Your task to perform on an android device: manage bookmarks in the chrome app Image 0: 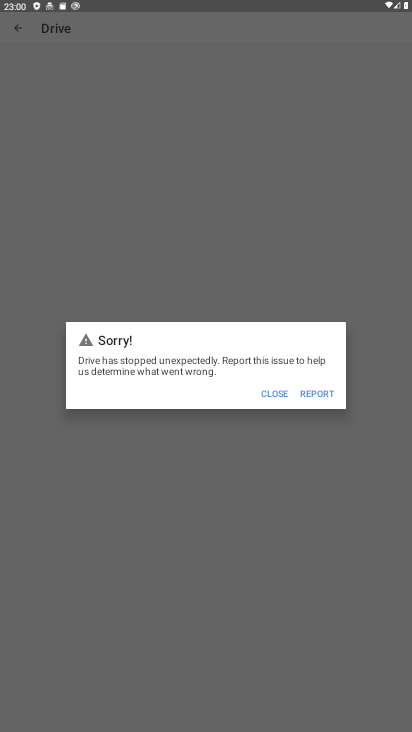
Step 0: drag from (214, 641) to (214, 280)
Your task to perform on an android device: manage bookmarks in the chrome app Image 1: 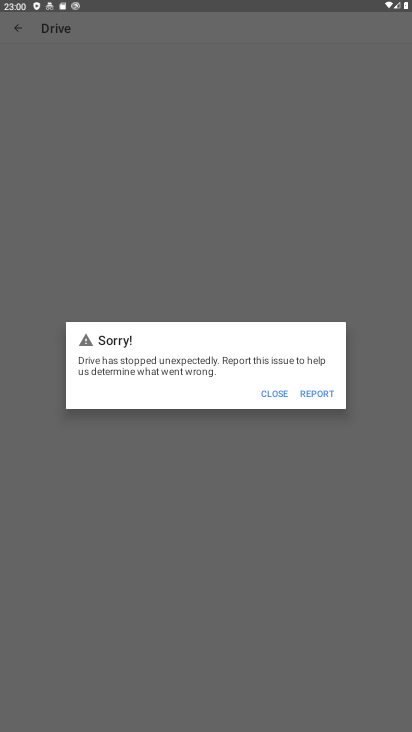
Step 1: click (280, 401)
Your task to perform on an android device: manage bookmarks in the chrome app Image 2: 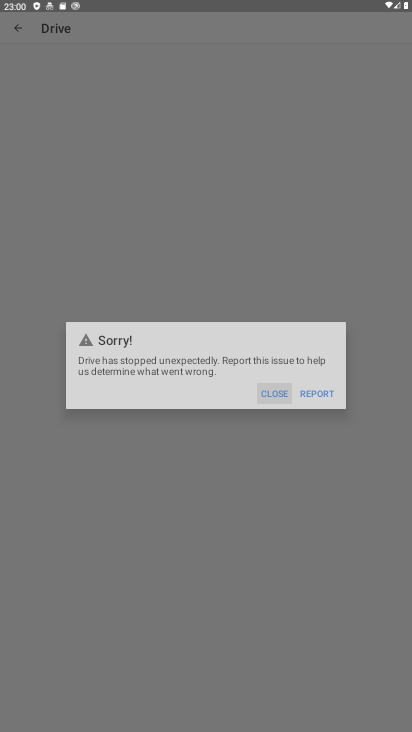
Step 2: click (274, 384)
Your task to perform on an android device: manage bookmarks in the chrome app Image 3: 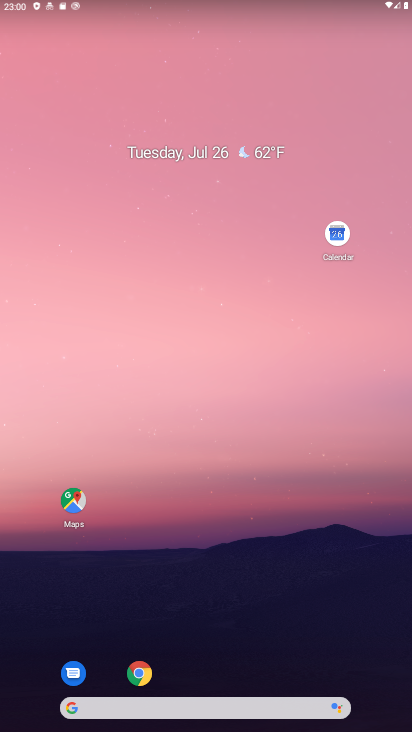
Step 3: drag from (231, 586) to (149, 173)
Your task to perform on an android device: manage bookmarks in the chrome app Image 4: 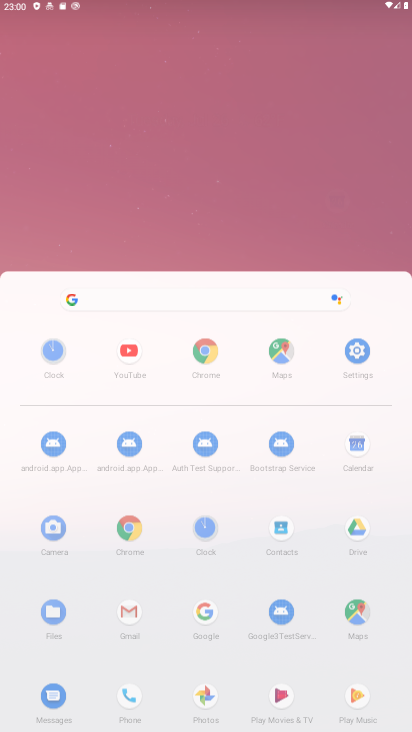
Step 4: drag from (231, 526) to (208, 176)
Your task to perform on an android device: manage bookmarks in the chrome app Image 5: 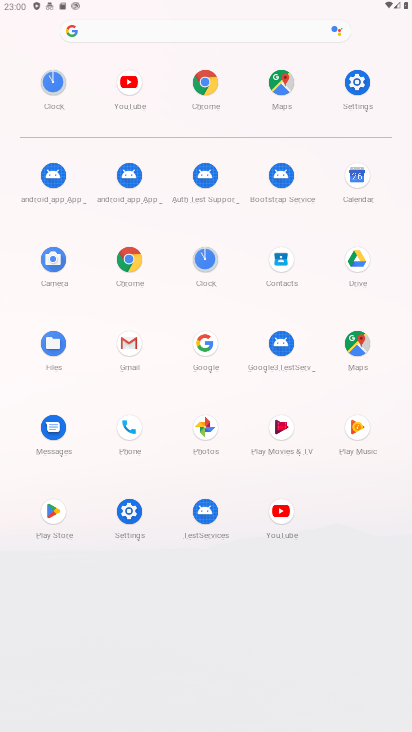
Step 5: click (203, 98)
Your task to perform on an android device: manage bookmarks in the chrome app Image 6: 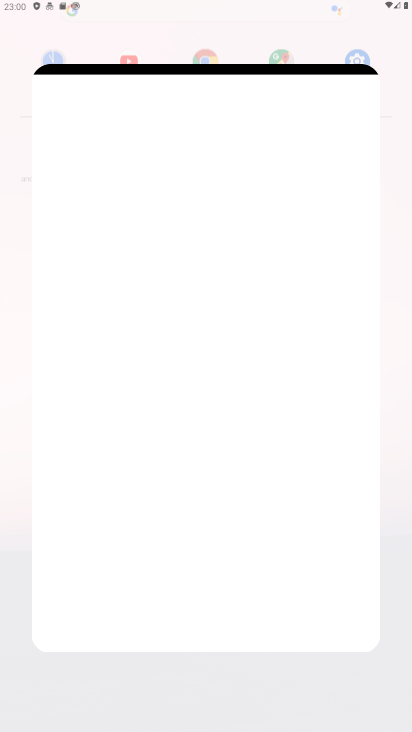
Step 6: click (204, 94)
Your task to perform on an android device: manage bookmarks in the chrome app Image 7: 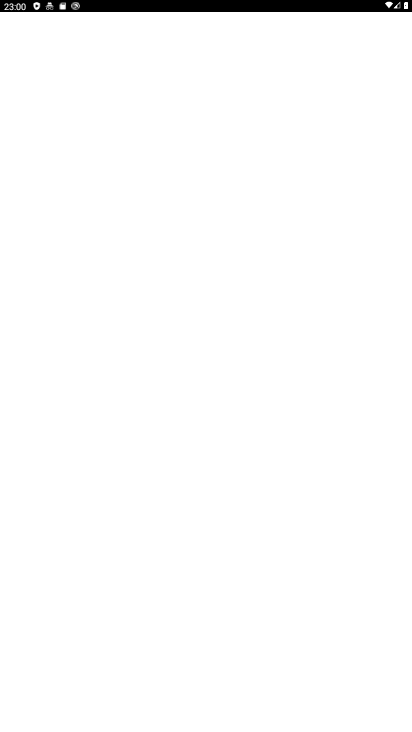
Step 7: click (206, 96)
Your task to perform on an android device: manage bookmarks in the chrome app Image 8: 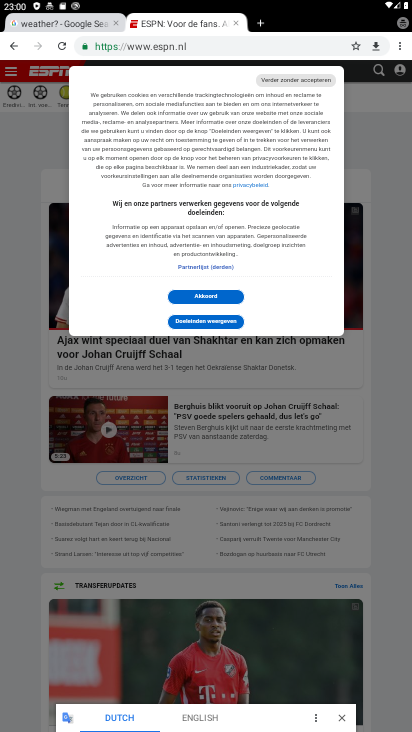
Step 8: click (363, 163)
Your task to perform on an android device: manage bookmarks in the chrome app Image 9: 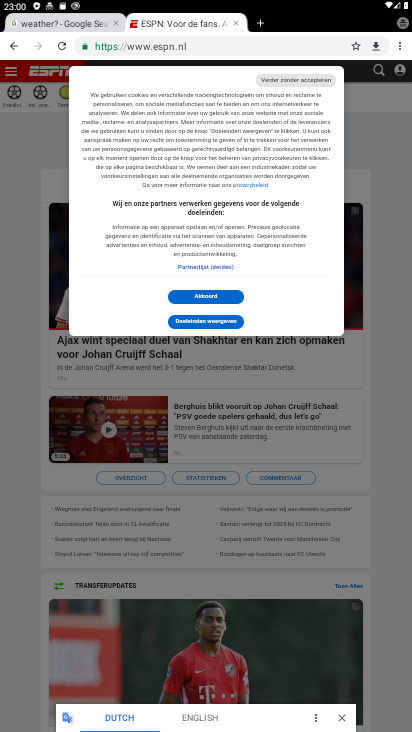
Step 9: drag from (393, 48) to (304, 85)
Your task to perform on an android device: manage bookmarks in the chrome app Image 10: 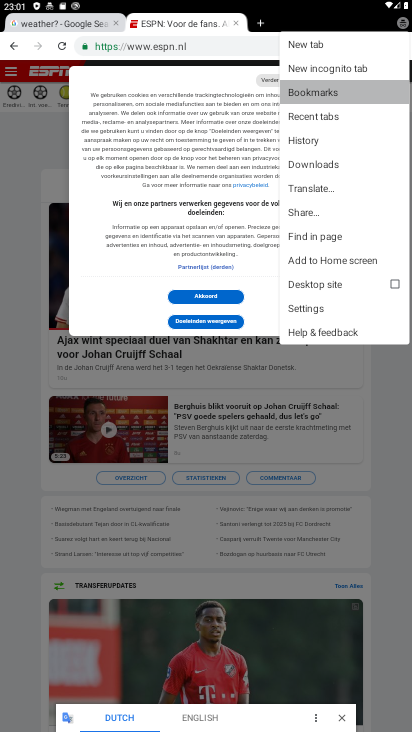
Step 10: click (304, 82)
Your task to perform on an android device: manage bookmarks in the chrome app Image 11: 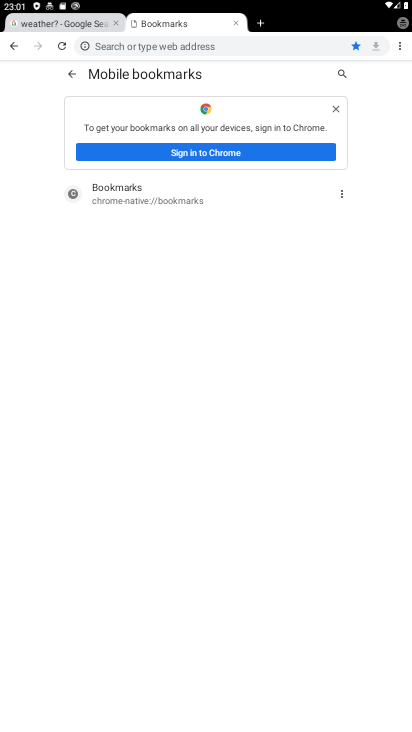
Step 11: click (337, 106)
Your task to perform on an android device: manage bookmarks in the chrome app Image 12: 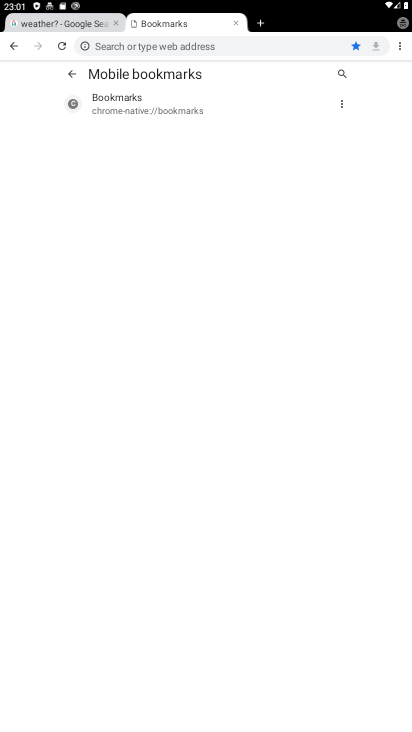
Step 12: task complete